Your task to perform on an android device: turn off improve location accuracy Image 0: 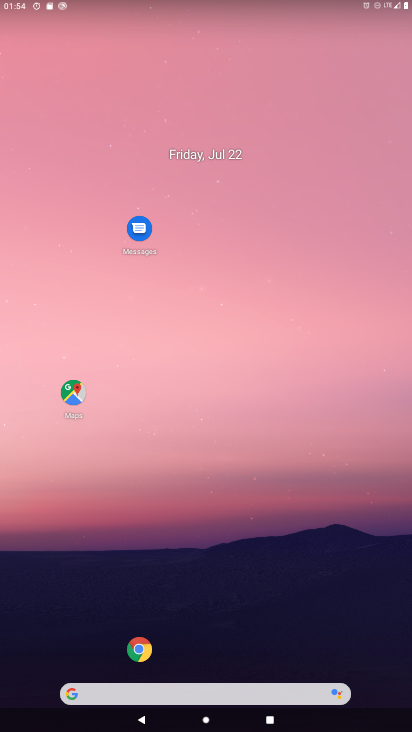
Step 0: drag from (184, 389) to (278, 105)
Your task to perform on an android device: turn off improve location accuracy Image 1: 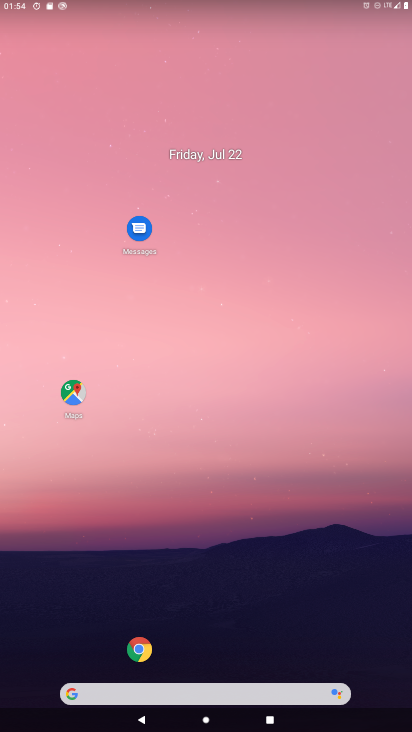
Step 1: drag from (50, 684) to (264, 32)
Your task to perform on an android device: turn off improve location accuracy Image 2: 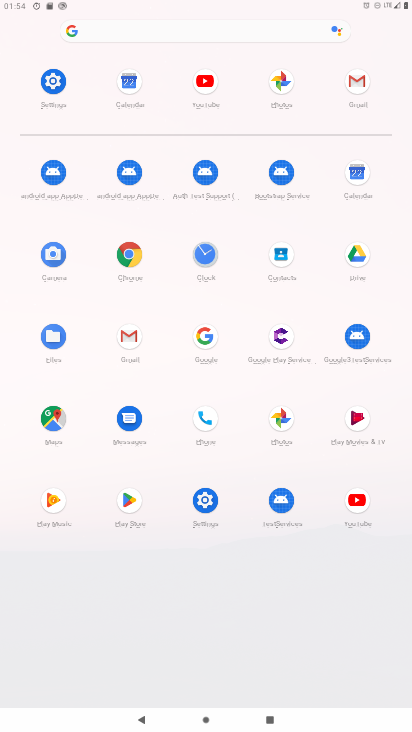
Step 2: click (212, 508)
Your task to perform on an android device: turn off improve location accuracy Image 3: 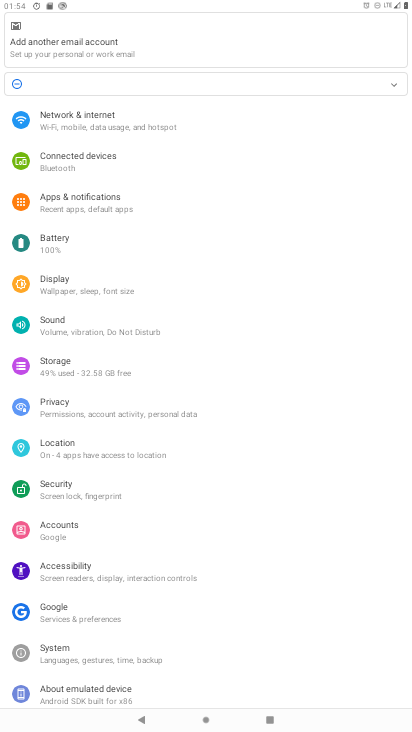
Step 3: click (80, 446)
Your task to perform on an android device: turn off improve location accuracy Image 4: 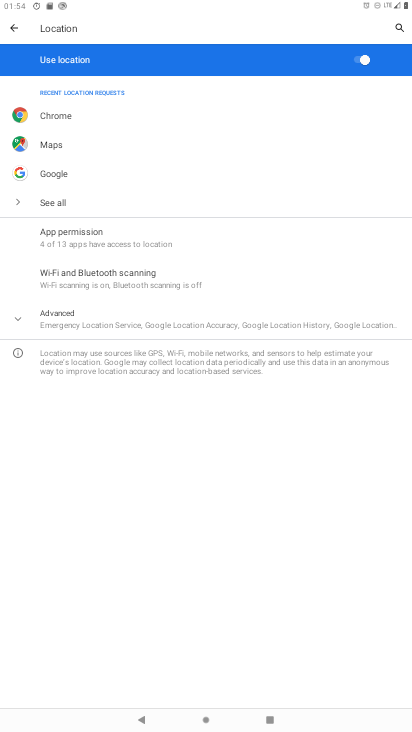
Step 4: click (60, 321)
Your task to perform on an android device: turn off improve location accuracy Image 5: 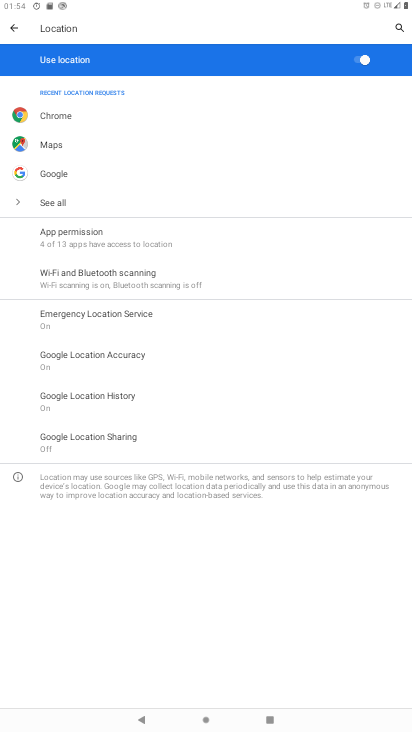
Step 5: click (103, 356)
Your task to perform on an android device: turn off improve location accuracy Image 6: 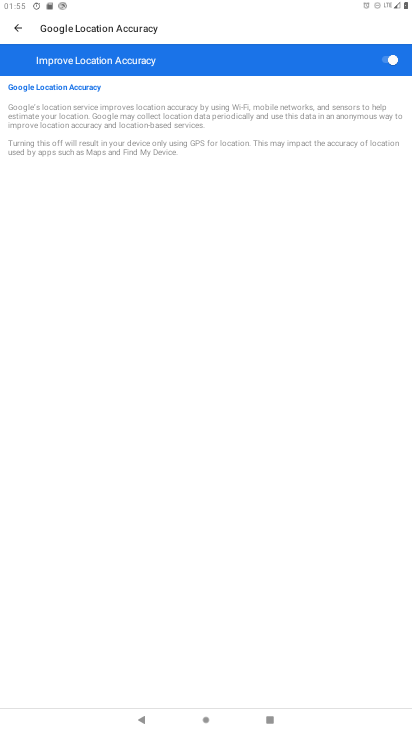
Step 6: click (384, 62)
Your task to perform on an android device: turn off improve location accuracy Image 7: 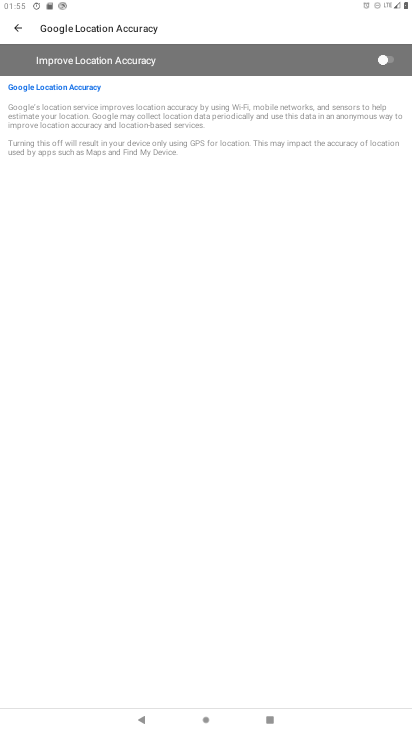
Step 7: task complete